Your task to perform on an android device: visit the assistant section in the google photos Image 0: 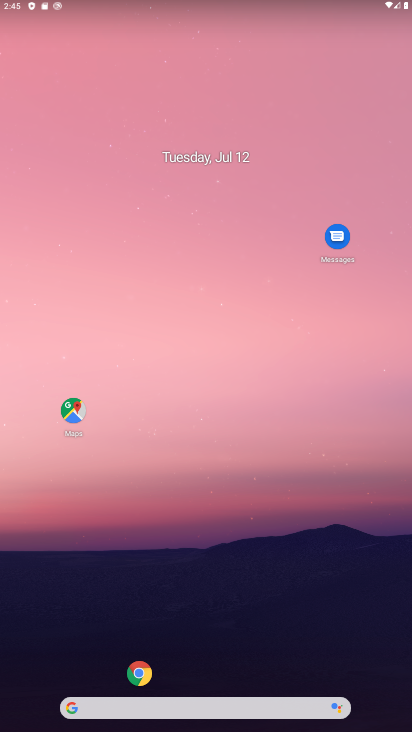
Step 0: drag from (47, 688) to (265, 49)
Your task to perform on an android device: visit the assistant section in the google photos Image 1: 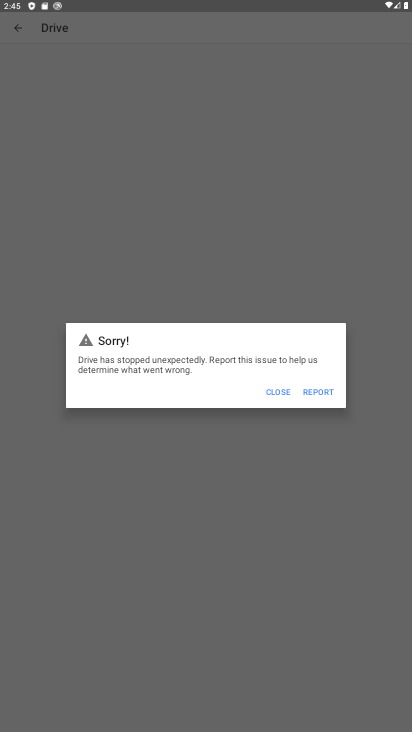
Step 1: press home button
Your task to perform on an android device: visit the assistant section in the google photos Image 2: 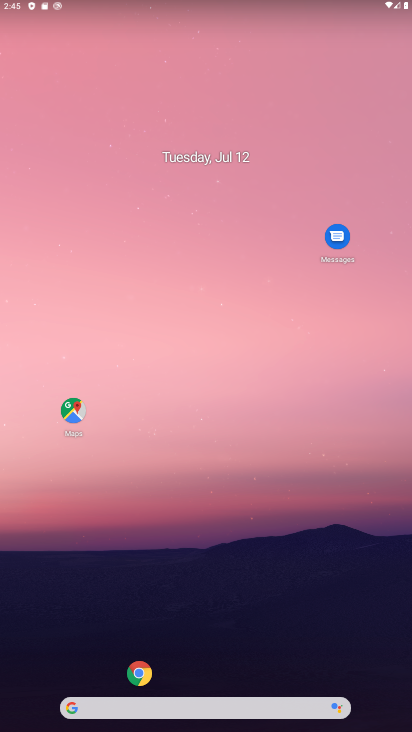
Step 2: drag from (36, 689) to (230, 183)
Your task to perform on an android device: visit the assistant section in the google photos Image 3: 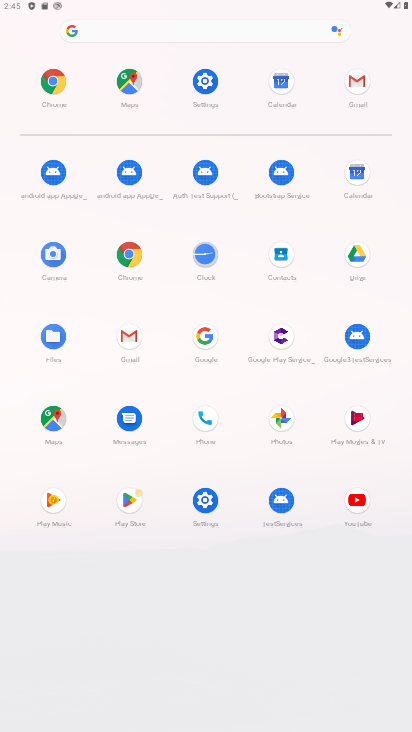
Step 3: click (290, 417)
Your task to perform on an android device: visit the assistant section in the google photos Image 4: 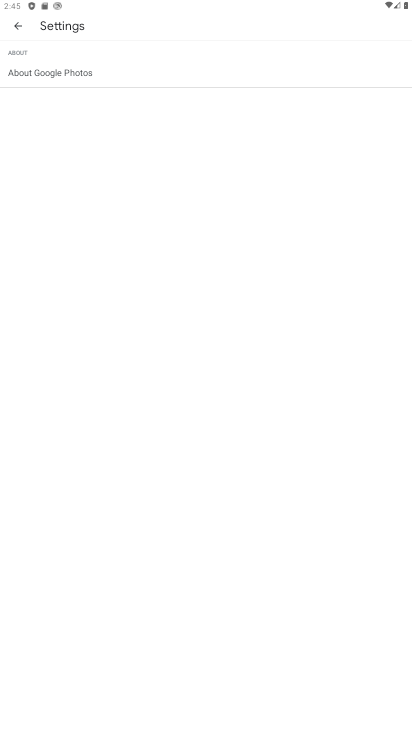
Step 4: click (19, 26)
Your task to perform on an android device: visit the assistant section in the google photos Image 5: 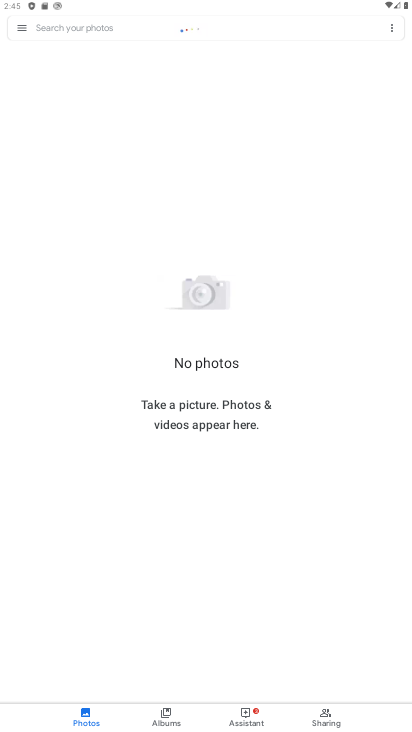
Step 5: click (251, 713)
Your task to perform on an android device: visit the assistant section in the google photos Image 6: 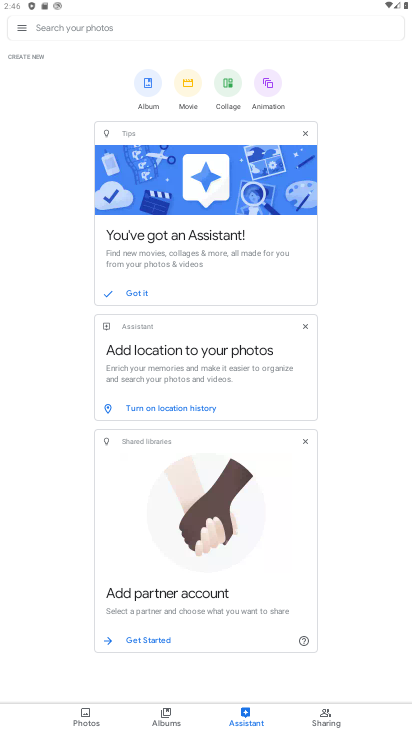
Step 6: task complete